Your task to perform on an android device: Is it going to rain this weekend? Image 0: 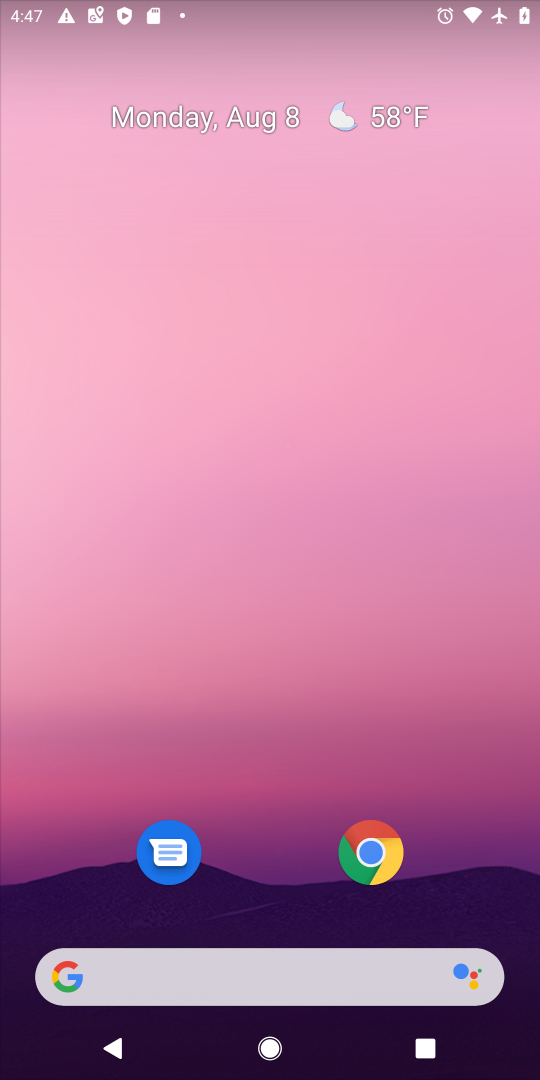
Step 0: drag from (258, 852) to (331, 11)
Your task to perform on an android device: Is it going to rain this weekend? Image 1: 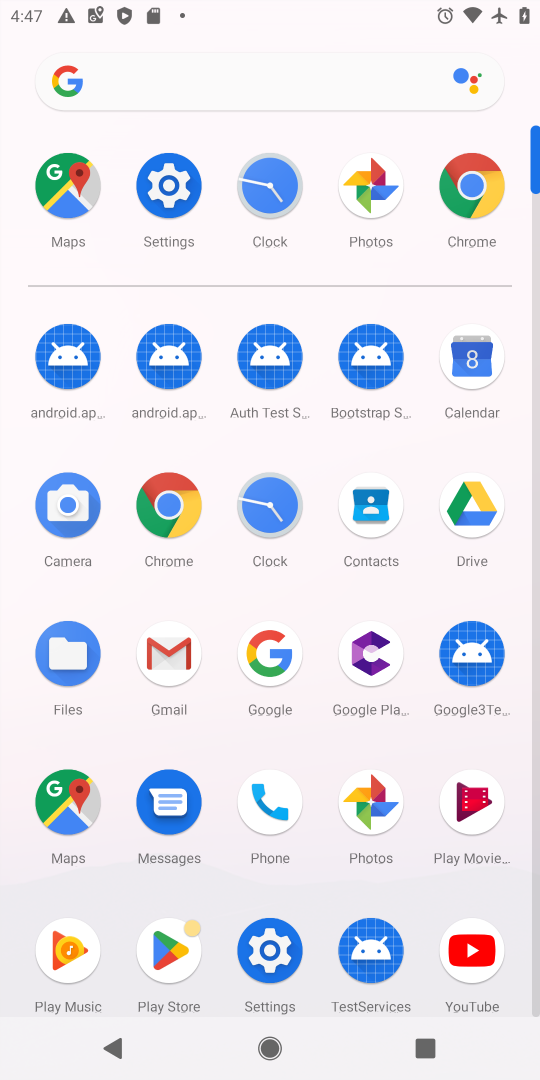
Step 1: click (156, 511)
Your task to perform on an android device: Is it going to rain this weekend? Image 2: 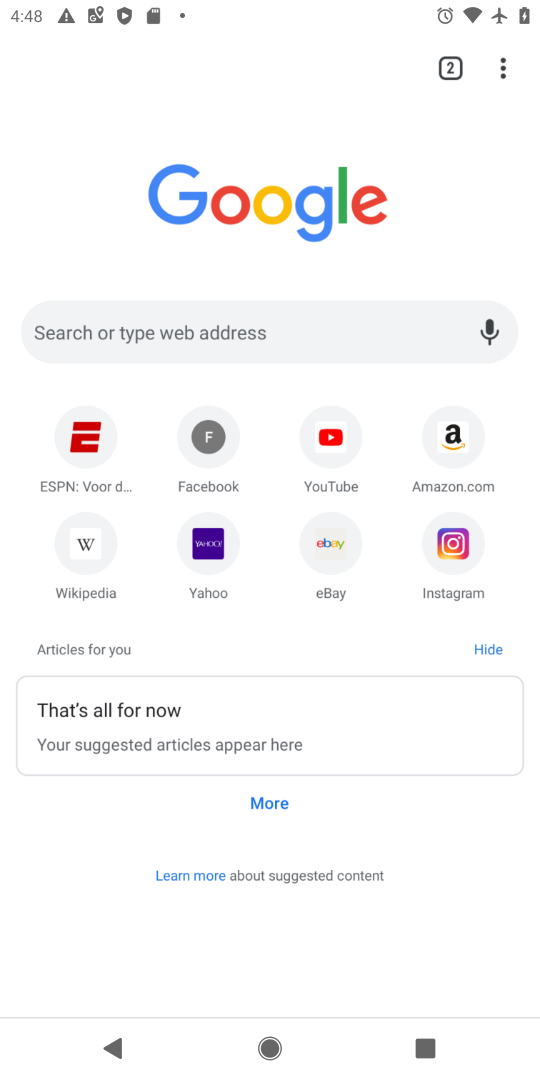
Step 2: click (182, 320)
Your task to perform on an android device: Is it going to rain this weekend? Image 3: 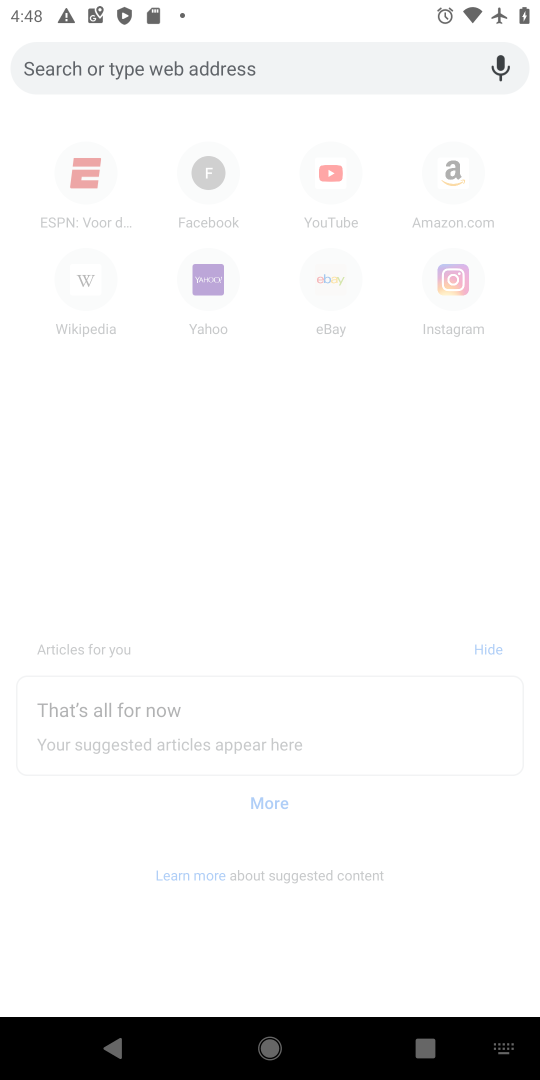
Step 3: type "rain"
Your task to perform on an android device: Is it going to rain this weekend? Image 4: 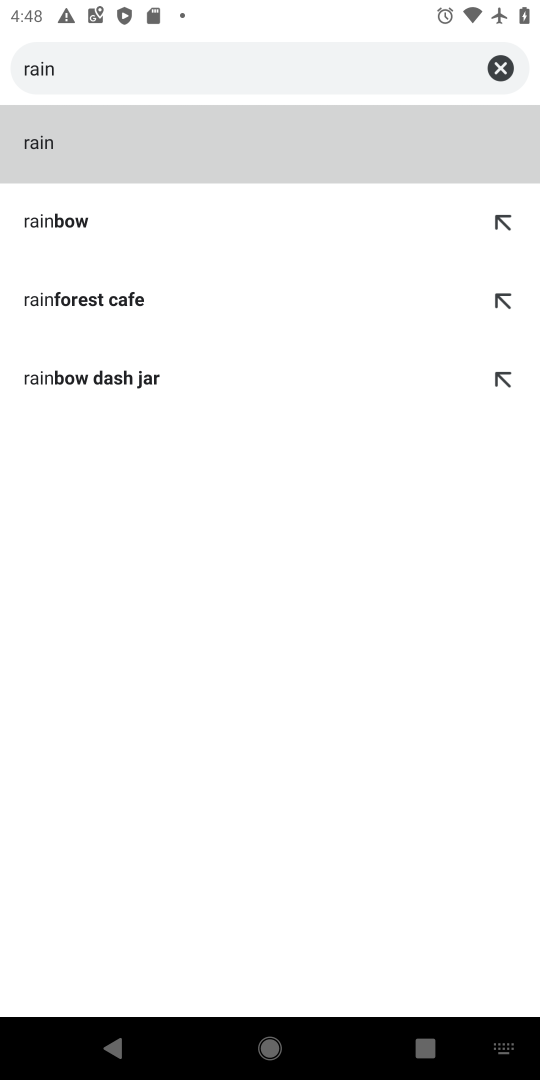
Step 4: click (131, 144)
Your task to perform on an android device: Is it going to rain this weekend? Image 5: 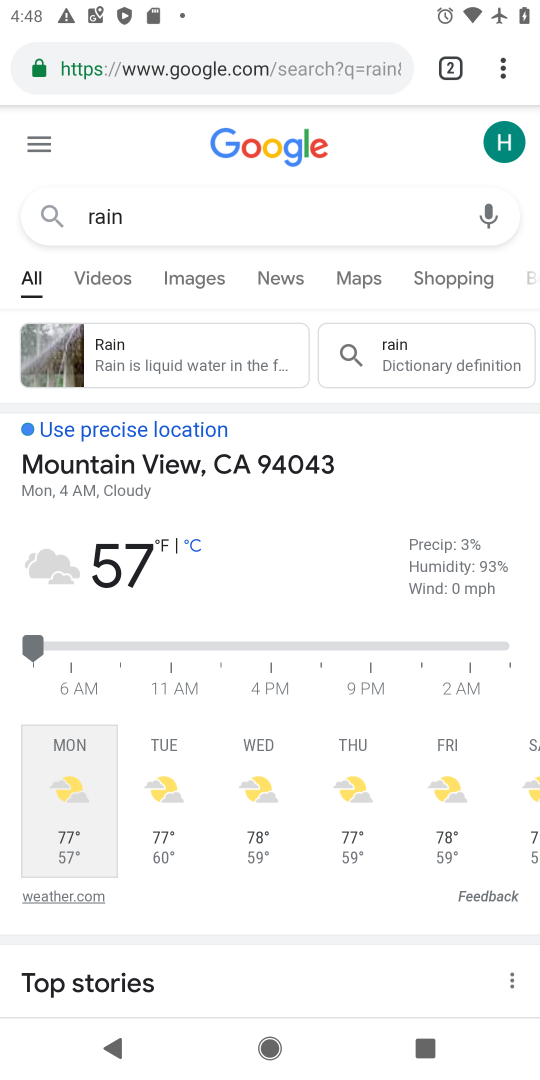
Step 5: click (528, 795)
Your task to perform on an android device: Is it going to rain this weekend? Image 6: 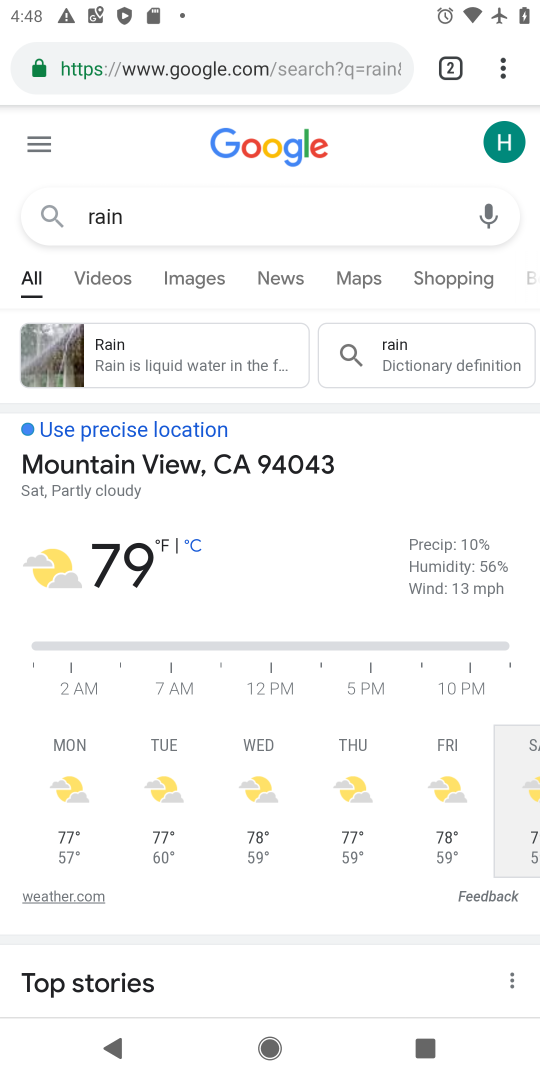
Step 6: task complete